Your task to perform on an android device: Go to Reddit.com Image 0: 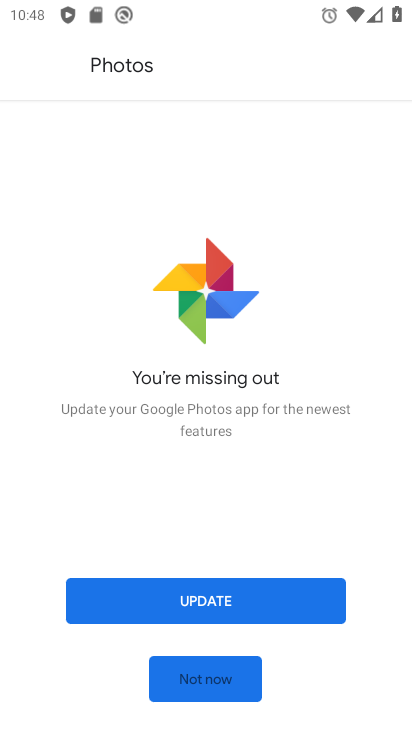
Step 0: press home button
Your task to perform on an android device: Go to Reddit.com Image 1: 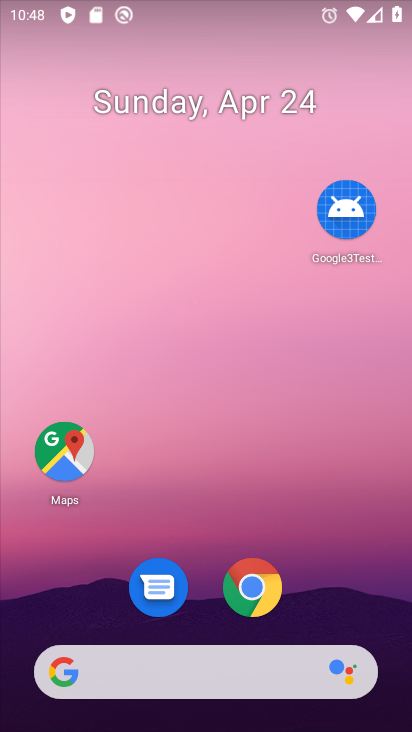
Step 1: drag from (362, 509) to (351, 75)
Your task to perform on an android device: Go to Reddit.com Image 2: 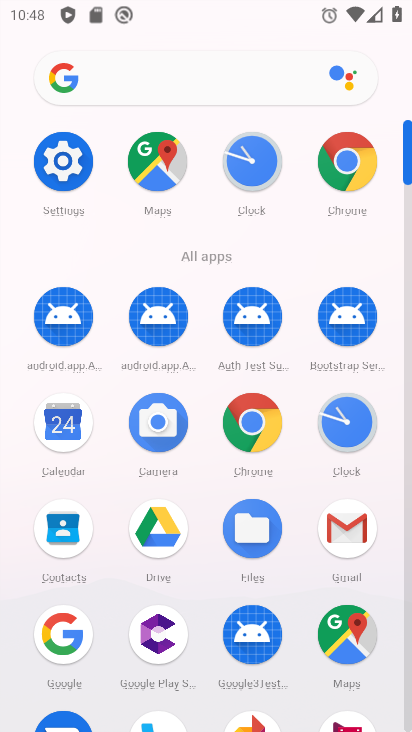
Step 2: drag from (212, 582) to (212, 220)
Your task to perform on an android device: Go to Reddit.com Image 3: 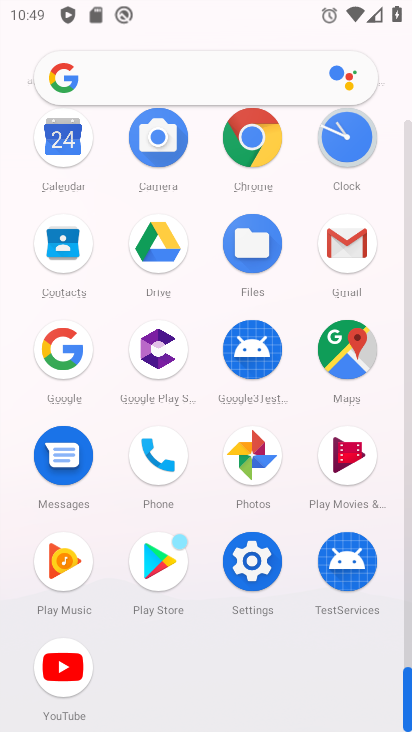
Step 3: click (254, 137)
Your task to perform on an android device: Go to Reddit.com Image 4: 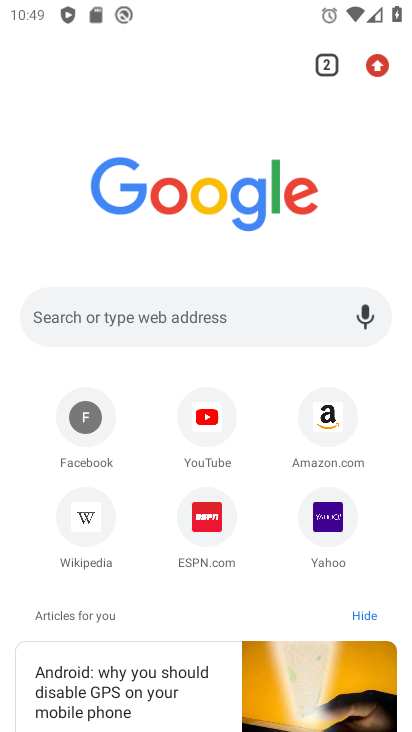
Step 4: click (185, 305)
Your task to perform on an android device: Go to Reddit.com Image 5: 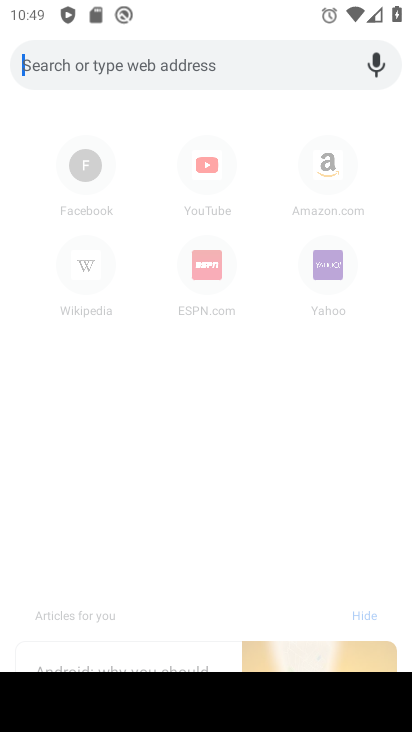
Step 5: type "reddit.com"
Your task to perform on an android device: Go to Reddit.com Image 6: 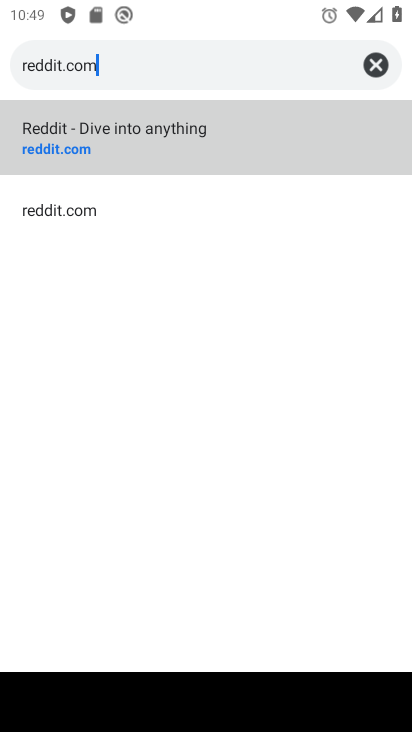
Step 6: click (107, 131)
Your task to perform on an android device: Go to Reddit.com Image 7: 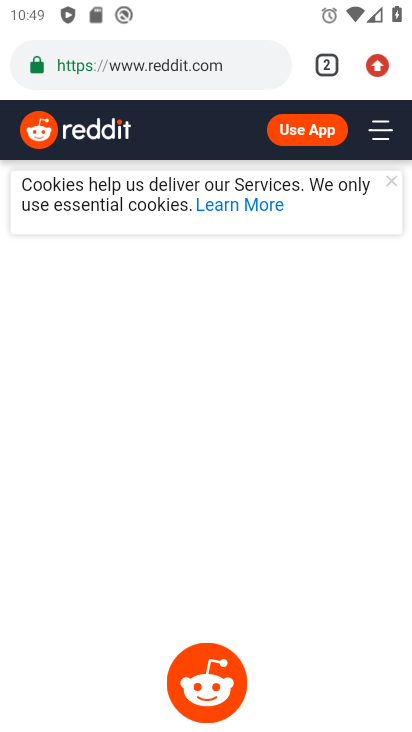
Step 7: task complete